Your task to perform on an android device: turn off improve location accuracy Image 0: 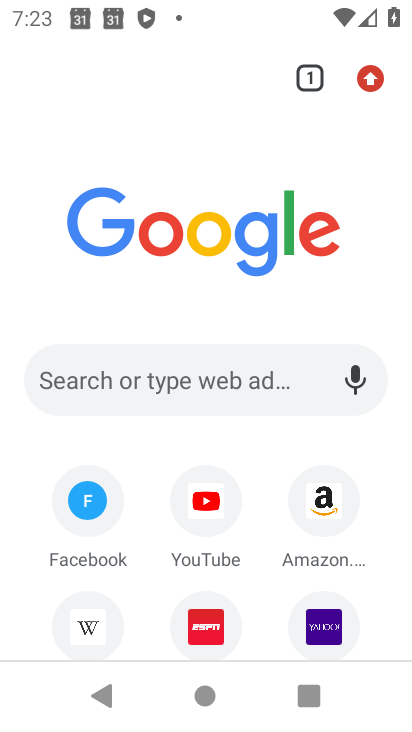
Step 0: press back button
Your task to perform on an android device: turn off improve location accuracy Image 1: 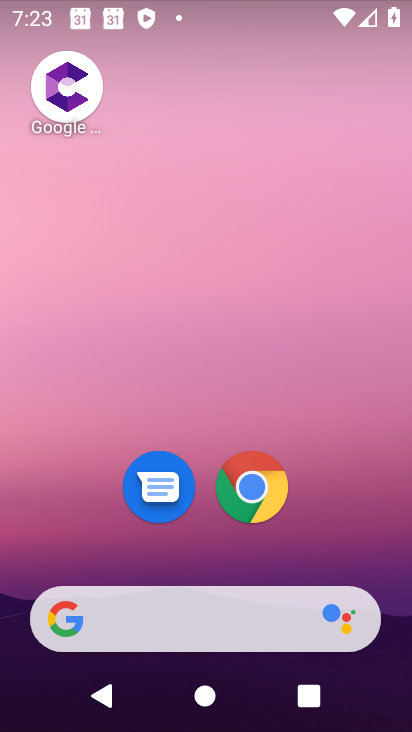
Step 1: drag from (333, 518) to (206, 124)
Your task to perform on an android device: turn off improve location accuracy Image 2: 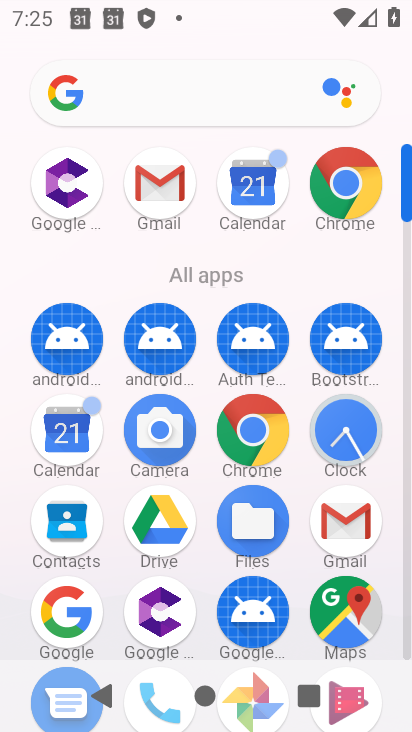
Step 2: click (406, 655)
Your task to perform on an android device: turn off improve location accuracy Image 3: 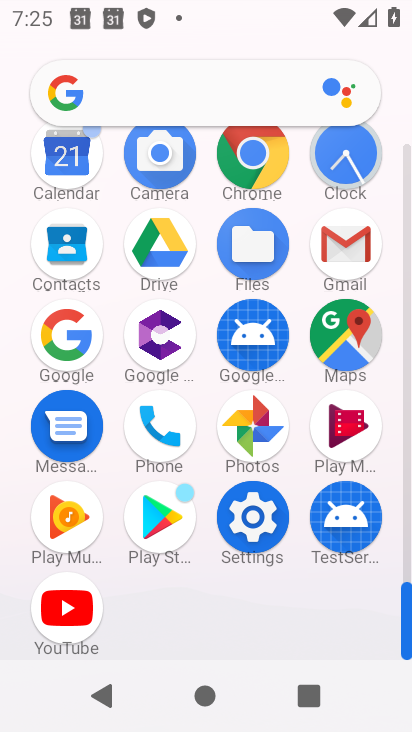
Step 3: click (257, 518)
Your task to perform on an android device: turn off improve location accuracy Image 4: 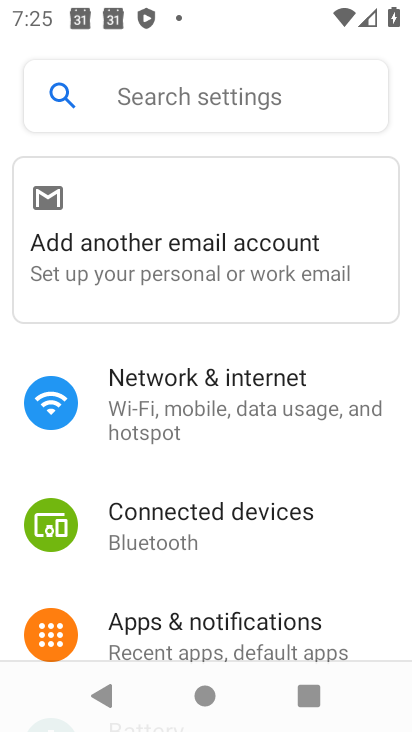
Step 4: drag from (200, 612) to (226, 152)
Your task to perform on an android device: turn off improve location accuracy Image 5: 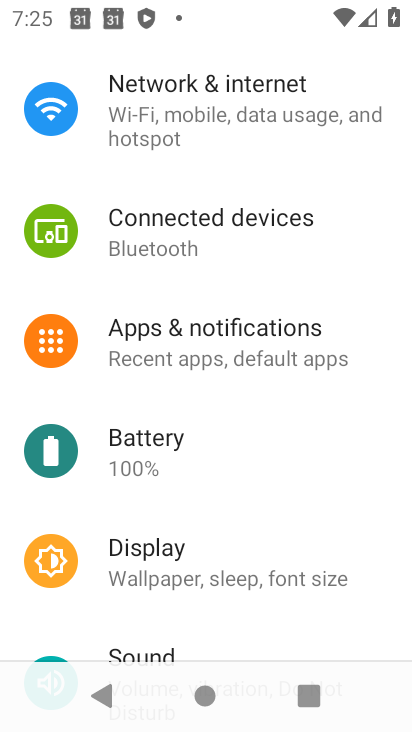
Step 5: drag from (174, 561) to (154, 218)
Your task to perform on an android device: turn off improve location accuracy Image 6: 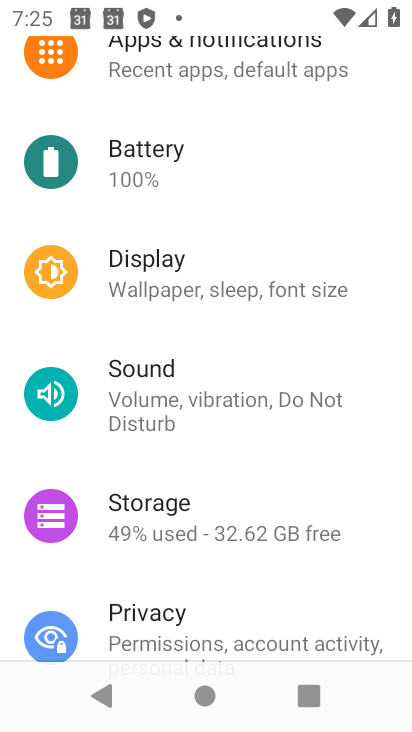
Step 6: drag from (121, 595) to (171, 158)
Your task to perform on an android device: turn off improve location accuracy Image 7: 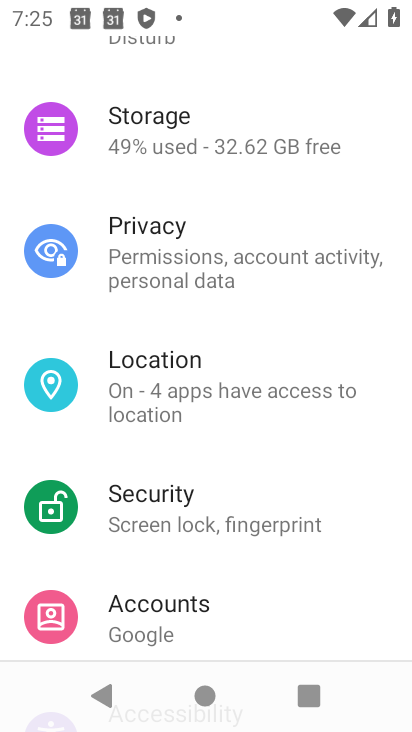
Step 7: click (190, 395)
Your task to perform on an android device: turn off improve location accuracy Image 8: 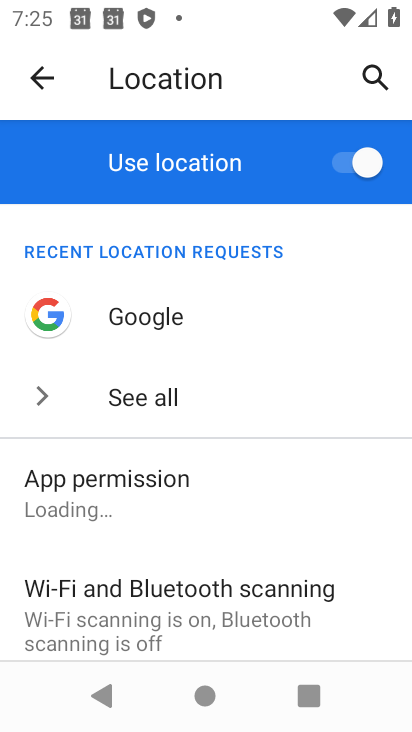
Step 8: drag from (222, 574) to (204, 183)
Your task to perform on an android device: turn off improve location accuracy Image 9: 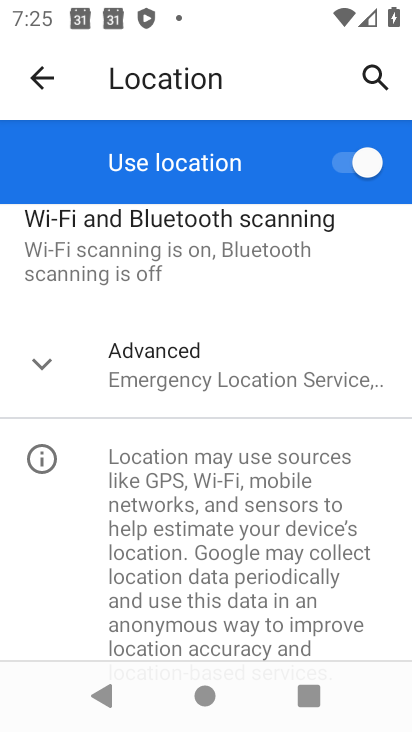
Step 9: click (215, 348)
Your task to perform on an android device: turn off improve location accuracy Image 10: 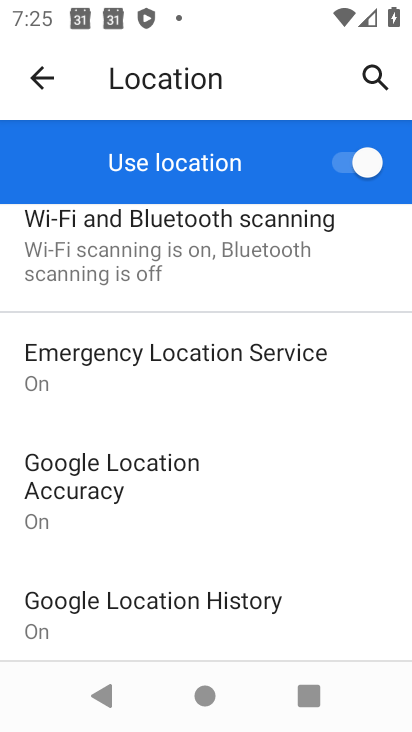
Step 10: click (144, 514)
Your task to perform on an android device: turn off improve location accuracy Image 11: 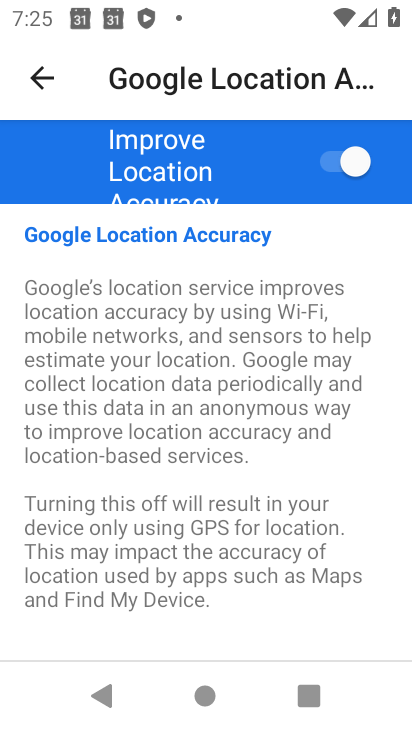
Step 11: click (348, 144)
Your task to perform on an android device: turn off improve location accuracy Image 12: 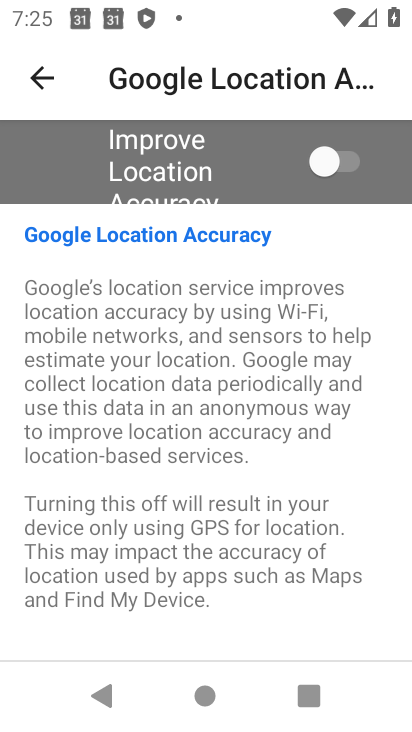
Step 12: task complete